Your task to perform on an android device: turn smart compose on in the gmail app Image 0: 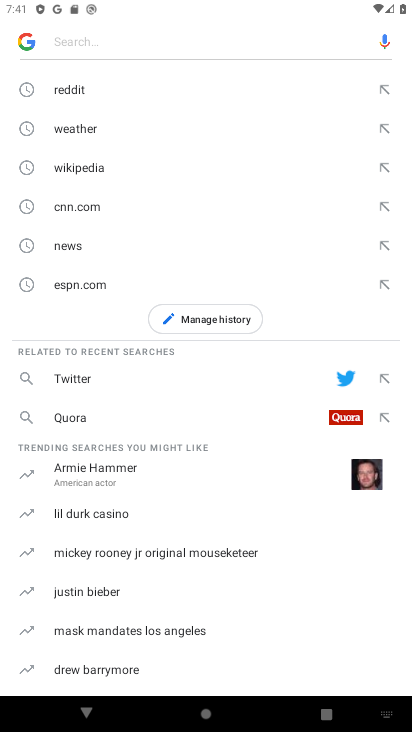
Step 0: press home button
Your task to perform on an android device: turn smart compose on in the gmail app Image 1: 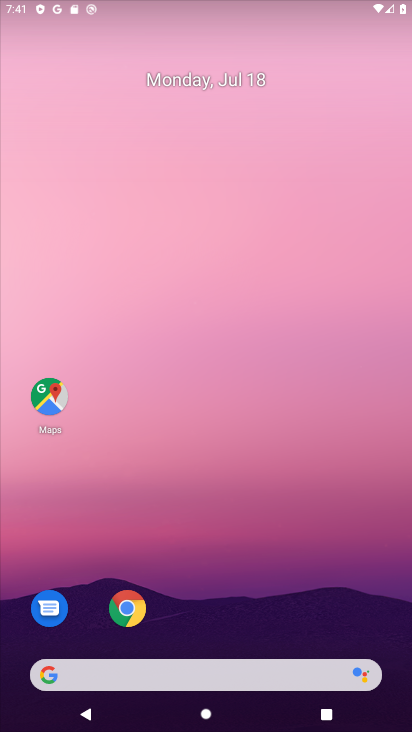
Step 1: drag from (199, 633) to (187, 149)
Your task to perform on an android device: turn smart compose on in the gmail app Image 2: 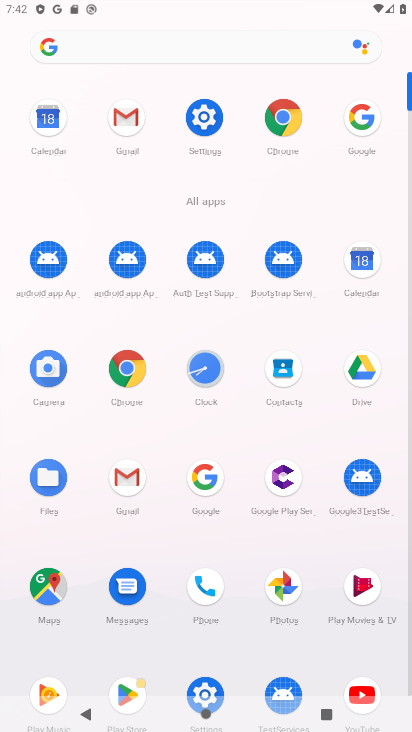
Step 2: click (125, 118)
Your task to perform on an android device: turn smart compose on in the gmail app Image 3: 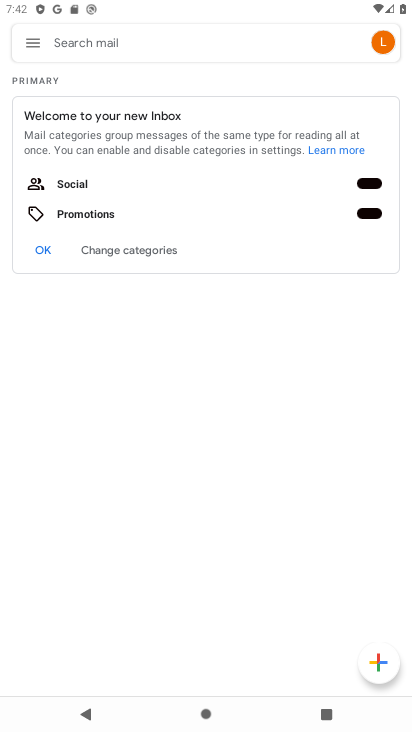
Step 3: click (32, 43)
Your task to perform on an android device: turn smart compose on in the gmail app Image 4: 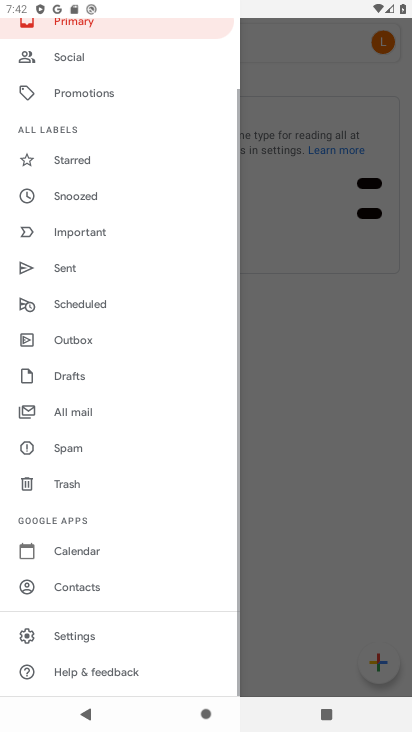
Step 4: click (93, 630)
Your task to perform on an android device: turn smart compose on in the gmail app Image 5: 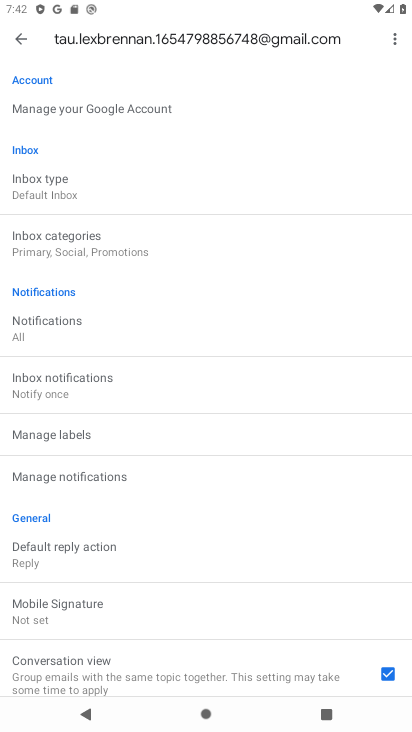
Step 5: task complete